Your task to perform on an android device: find photos in the google photos app Image 0: 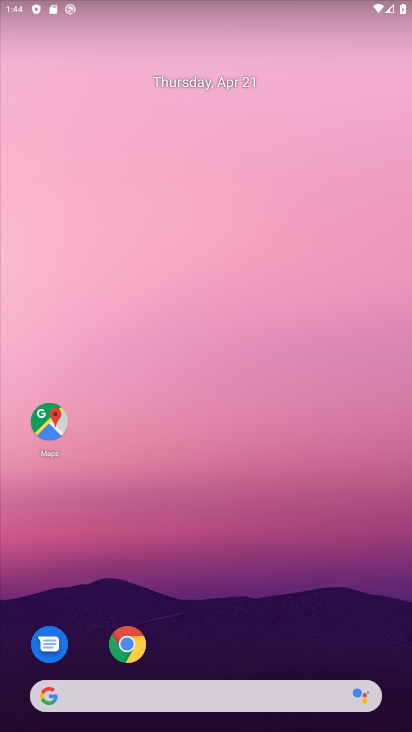
Step 0: drag from (234, 600) to (222, 181)
Your task to perform on an android device: find photos in the google photos app Image 1: 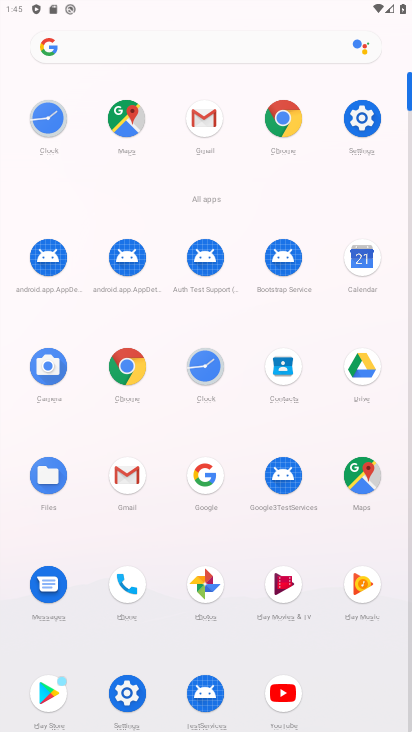
Step 1: click (213, 595)
Your task to perform on an android device: find photos in the google photos app Image 2: 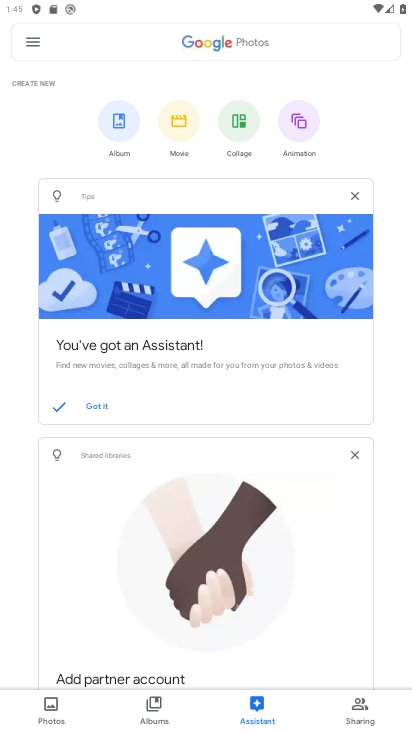
Step 2: click (47, 722)
Your task to perform on an android device: find photos in the google photos app Image 3: 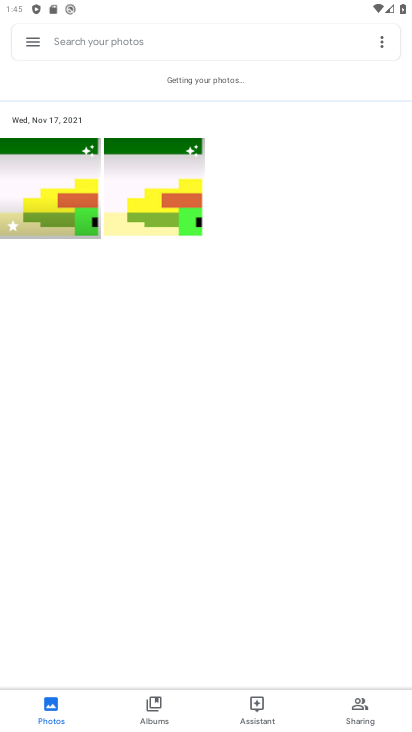
Step 3: task complete